Your task to perform on an android device: Open my contact list Image 0: 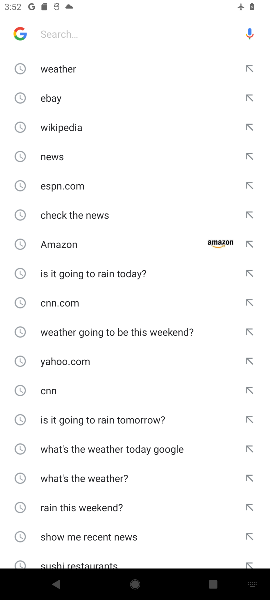
Step 0: press back button
Your task to perform on an android device: Open my contact list Image 1: 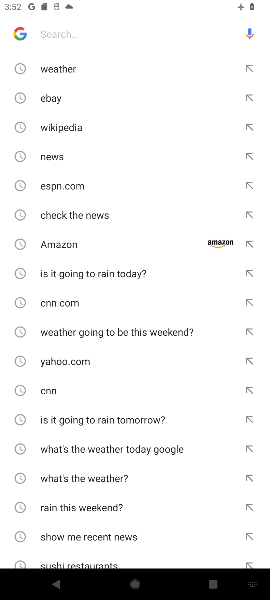
Step 1: press back button
Your task to perform on an android device: Open my contact list Image 2: 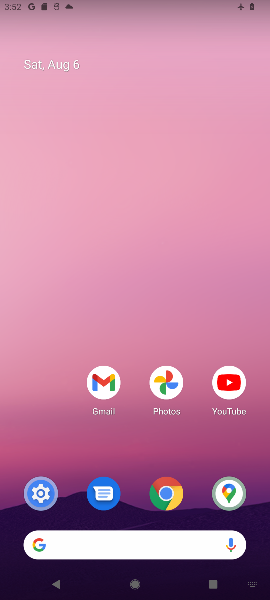
Step 2: press back button
Your task to perform on an android device: Open my contact list Image 3: 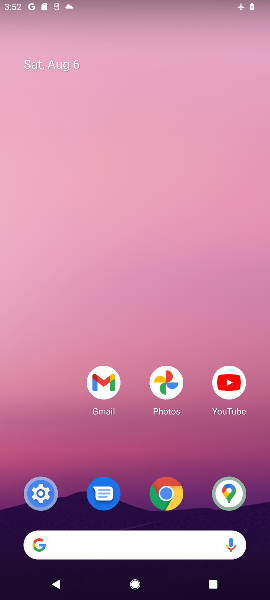
Step 3: click (111, 120)
Your task to perform on an android device: Open my contact list Image 4: 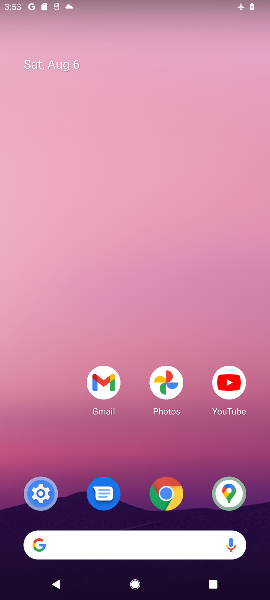
Step 4: drag from (159, 514) to (93, 75)
Your task to perform on an android device: Open my contact list Image 5: 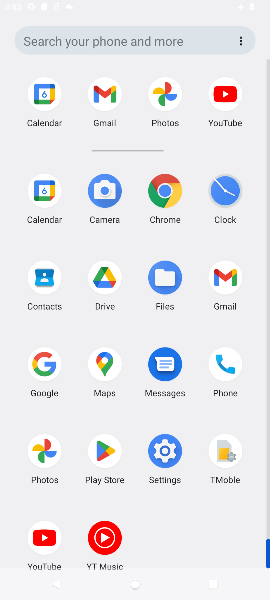
Step 5: drag from (172, 495) to (118, 130)
Your task to perform on an android device: Open my contact list Image 6: 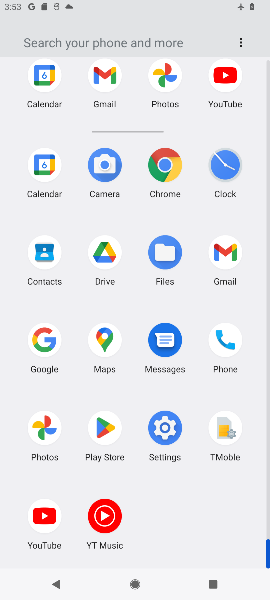
Step 6: drag from (124, 458) to (82, 161)
Your task to perform on an android device: Open my contact list Image 7: 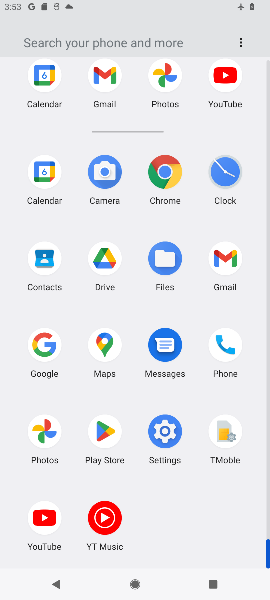
Step 7: click (44, 260)
Your task to perform on an android device: Open my contact list Image 8: 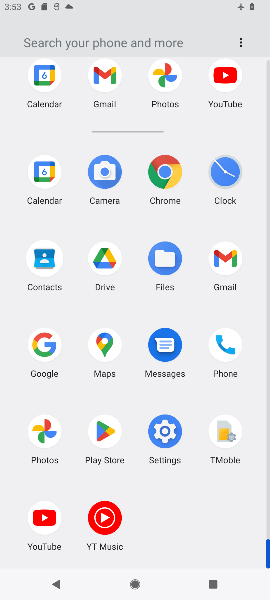
Step 8: click (43, 259)
Your task to perform on an android device: Open my contact list Image 9: 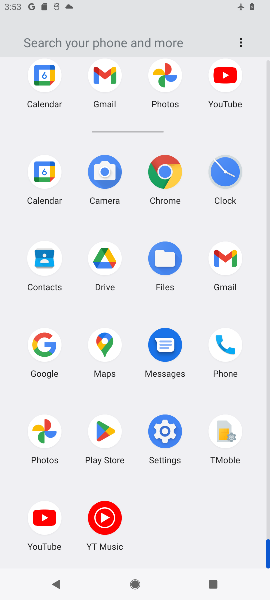
Step 9: click (40, 260)
Your task to perform on an android device: Open my contact list Image 10: 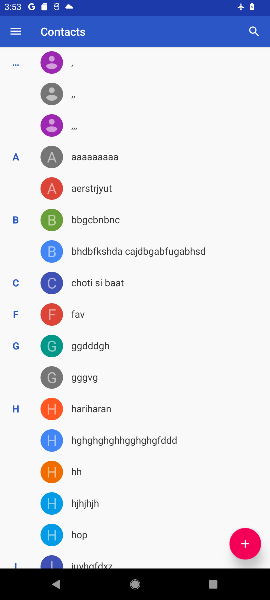
Step 10: task complete